Your task to perform on an android device: Open the web browser Image 0: 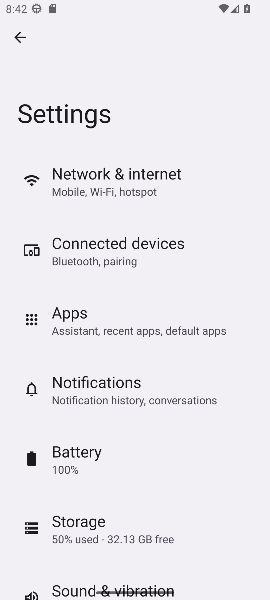
Step 0: press home button
Your task to perform on an android device: Open the web browser Image 1: 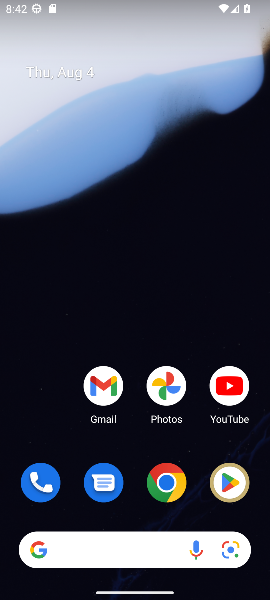
Step 1: click (167, 477)
Your task to perform on an android device: Open the web browser Image 2: 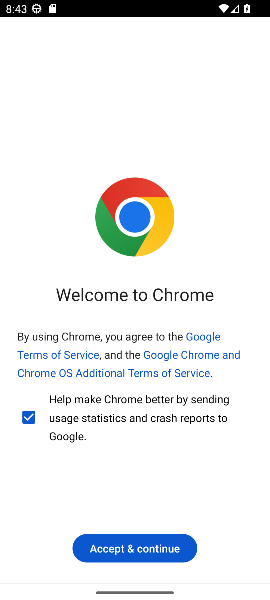
Step 2: click (127, 545)
Your task to perform on an android device: Open the web browser Image 3: 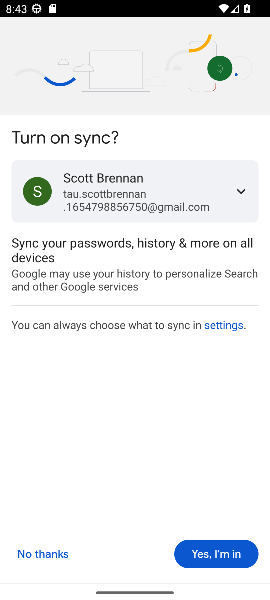
Step 3: click (210, 558)
Your task to perform on an android device: Open the web browser Image 4: 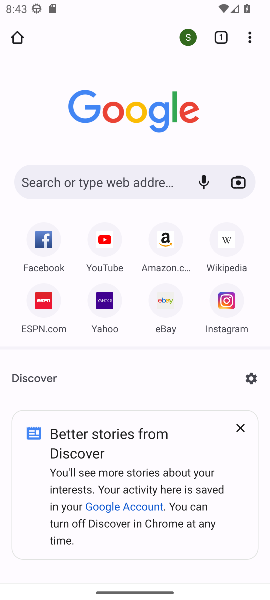
Step 4: task complete